Your task to perform on an android device: open chrome and create a bookmark for the current page Image 0: 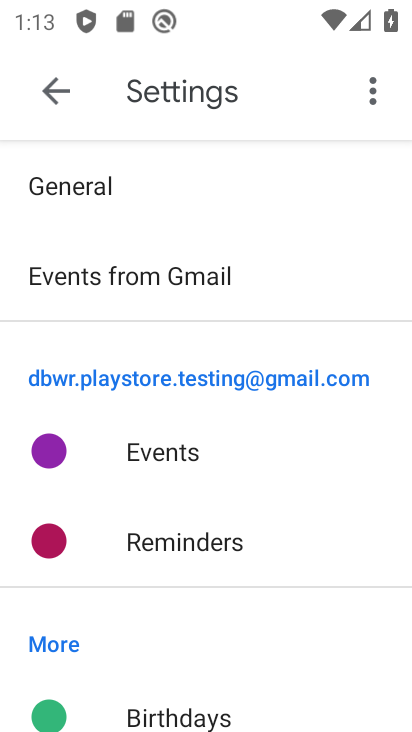
Step 0: press home button
Your task to perform on an android device: open chrome and create a bookmark for the current page Image 1: 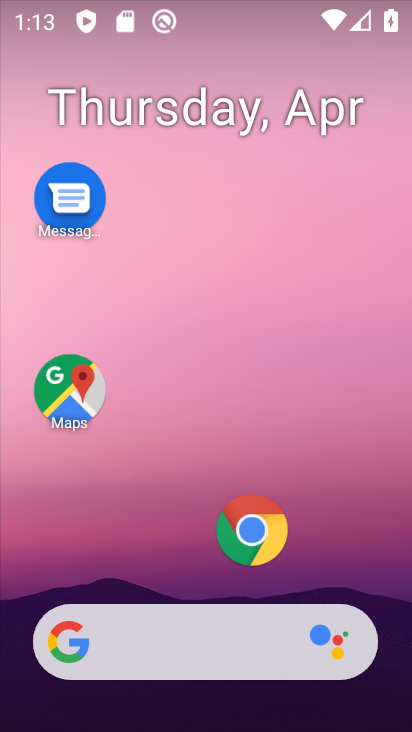
Step 1: click (250, 545)
Your task to perform on an android device: open chrome and create a bookmark for the current page Image 2: 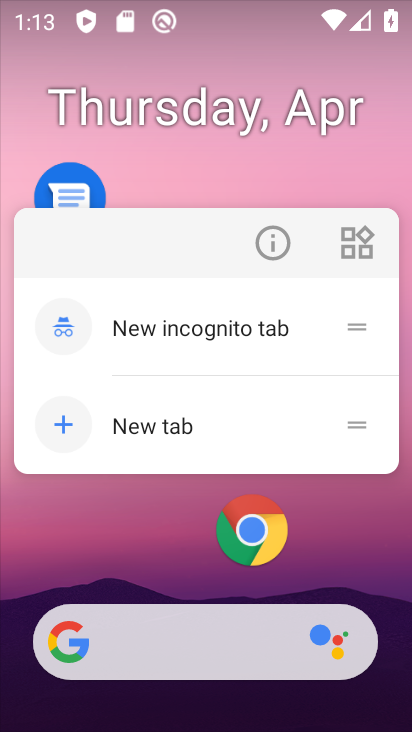
Step 2: click (248, 526)
Your task to perform on an android device: open chrome and create a bookmark for the current page Image 3: 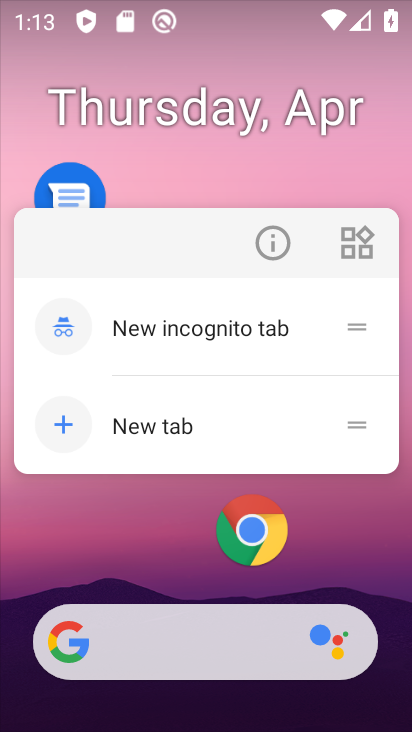
Step 3: click (247, 525)
Your task to perform on an android device: open chrome and create a bookmark for the current page Image 4: 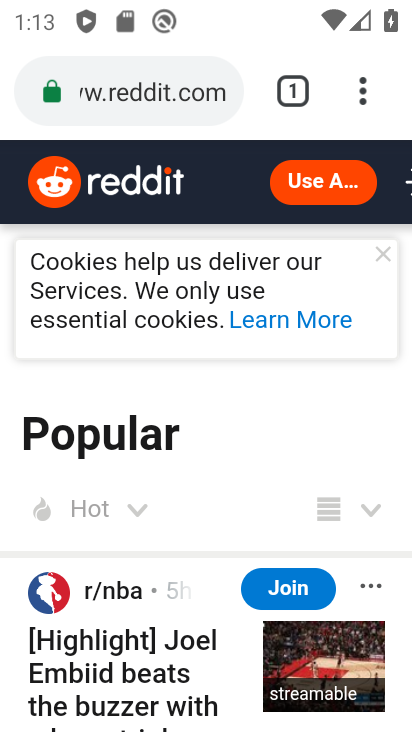
Step 4: task complete